Your task to perform on an android device: toggle pop-ups in chrome Image 0: 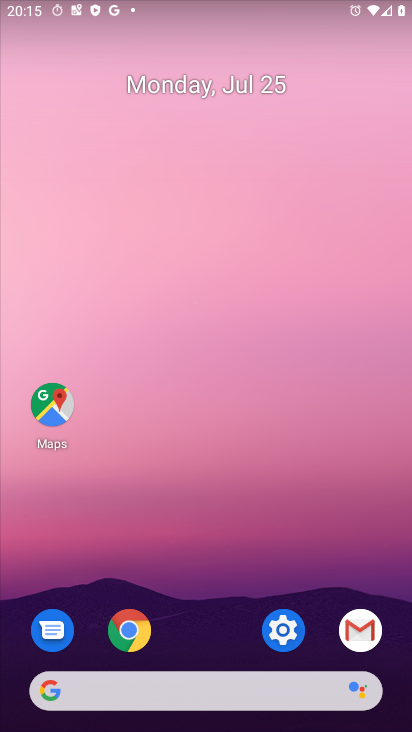
Step 0: click (138, 630)
Your task to perform on an android device: toggle pop-ups in chrome Image 1: 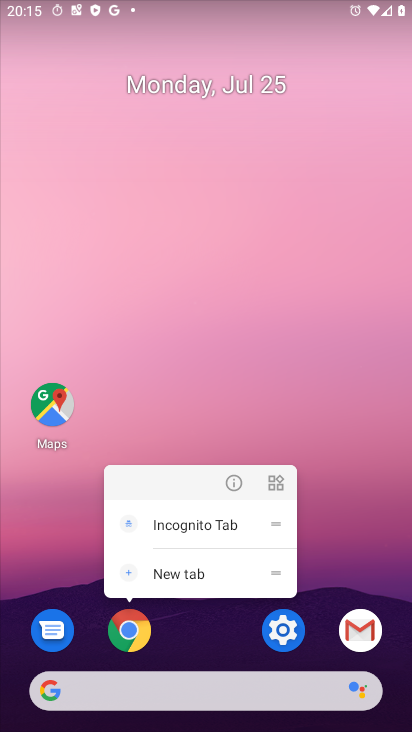
Step 1: click (129, 633)
Your task to perform on an android device: toggle pop-ups in chrome Image 2: 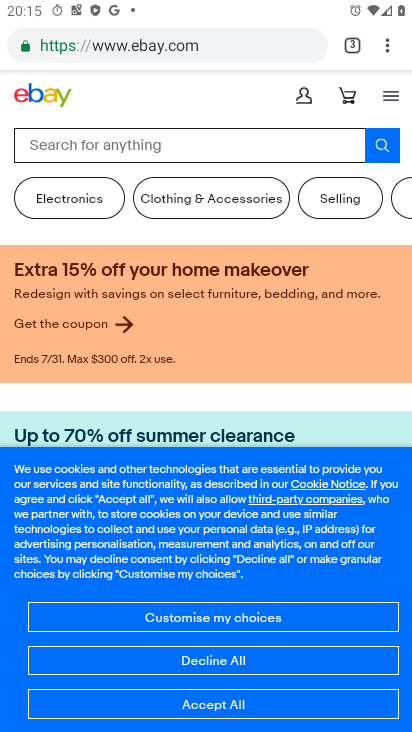
Step 2: click (388, 43)
Your task to perform on an android device: toggle pop-ups in chrome Image 3: 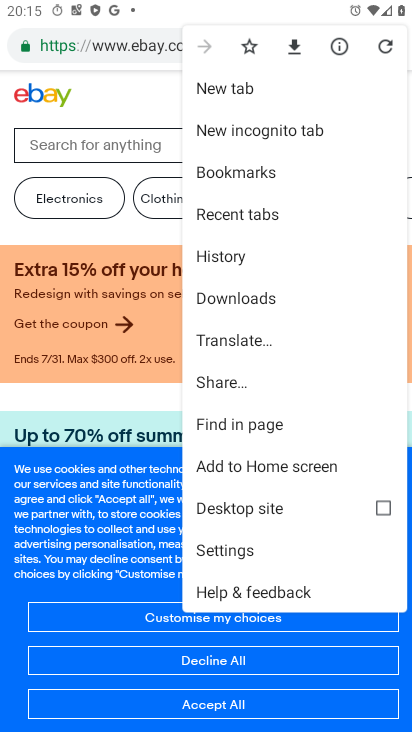
Step 3: click (231, 550)
Your task to perform on an android device: toggle pop-ups in chrome Image 4: 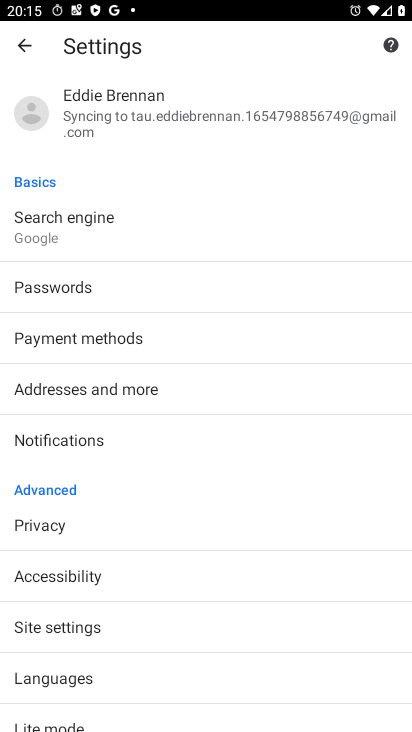
Step 4: click (32, 628)
Your task to perform on an android device: toggle pop-ups in chrome Image 5: 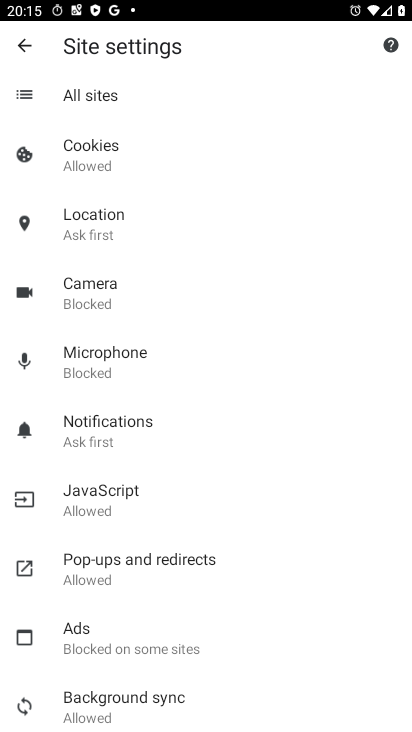
Step 5: click (84, 566)
Your task to perform on an android device: toggle pop-ups in chrome Image 6: 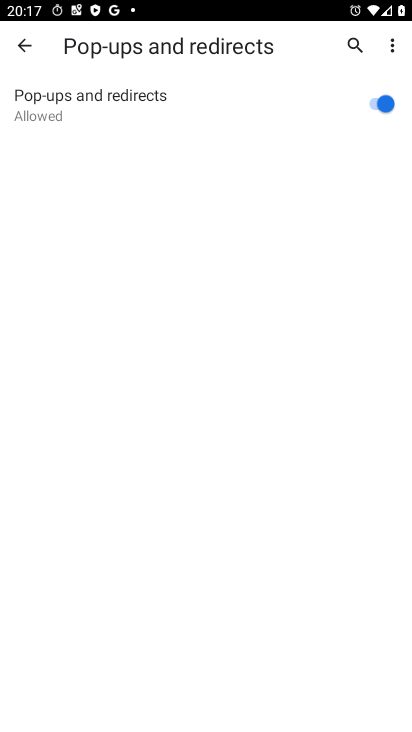
Step 6: task complete